Your task to perform on an android device: toggle translation in the chrome app Image 0: 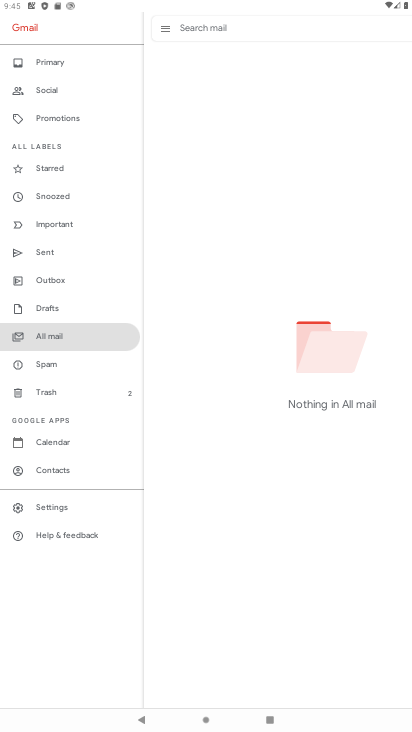
Step 0: press home button
Your task to perform on an android device: toggle translation in the chrome app Image 1: 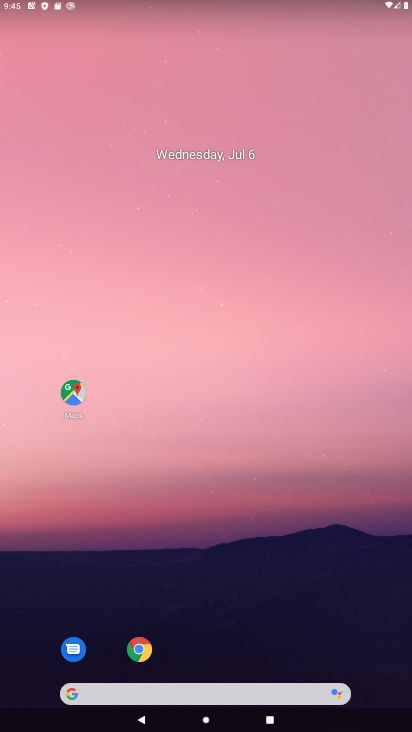
Step 1: click (140, 647)
Your task to perform on an android device: toggle translation in the chrome app Image 2: 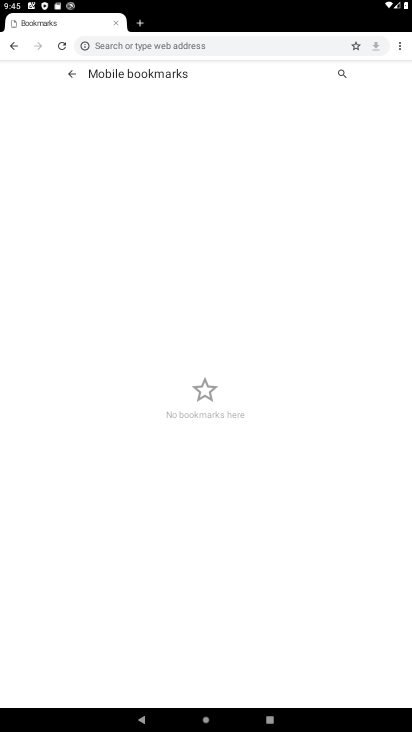
Step 2: click (402, 48)
Your task to perform on an android device: toggle translation in the chrome app Image 3: 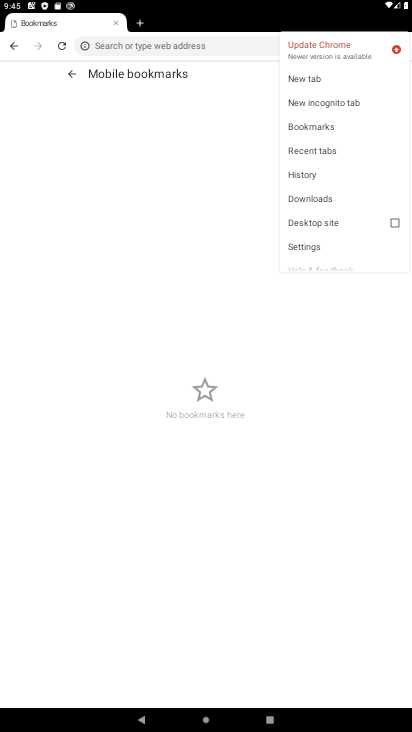
Step 3: click (314, 246)
Your task to perform on an android device: toggle translation in the chrome app Image 4: 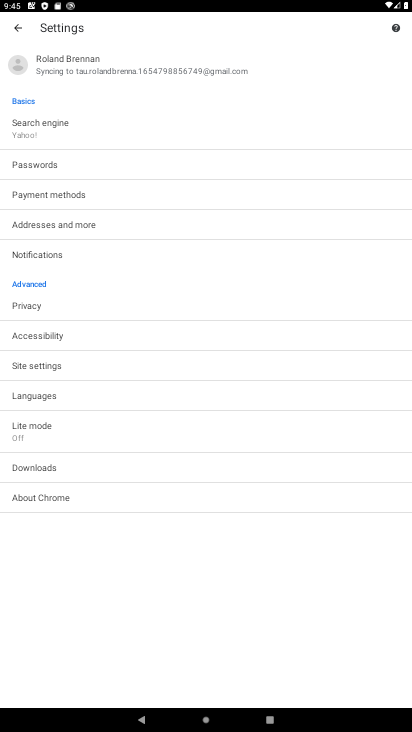
Step 4: click (50, 395)
Your task to perform on an android device: toggle translation in the chrome app Image 5: 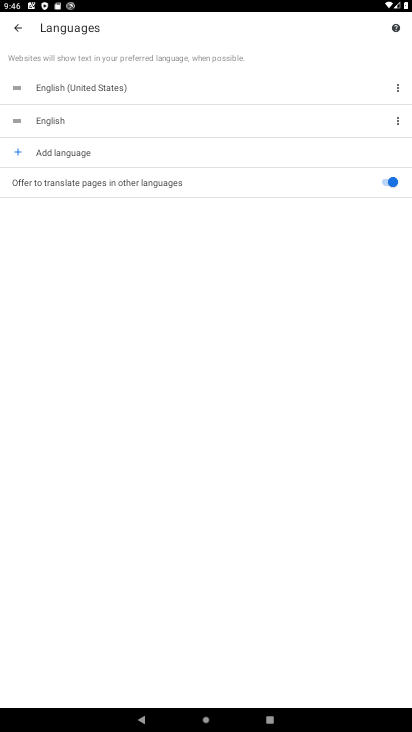
Step 5: click (388, 183)
Your task to perform on an android device: toggle translation in the chrome app Image 6: 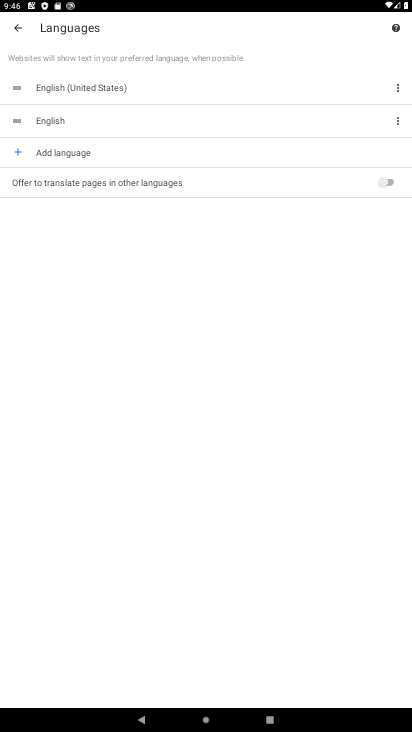
Step 6: task complete